Your task to perform on an android device: turn off location history Image 0: 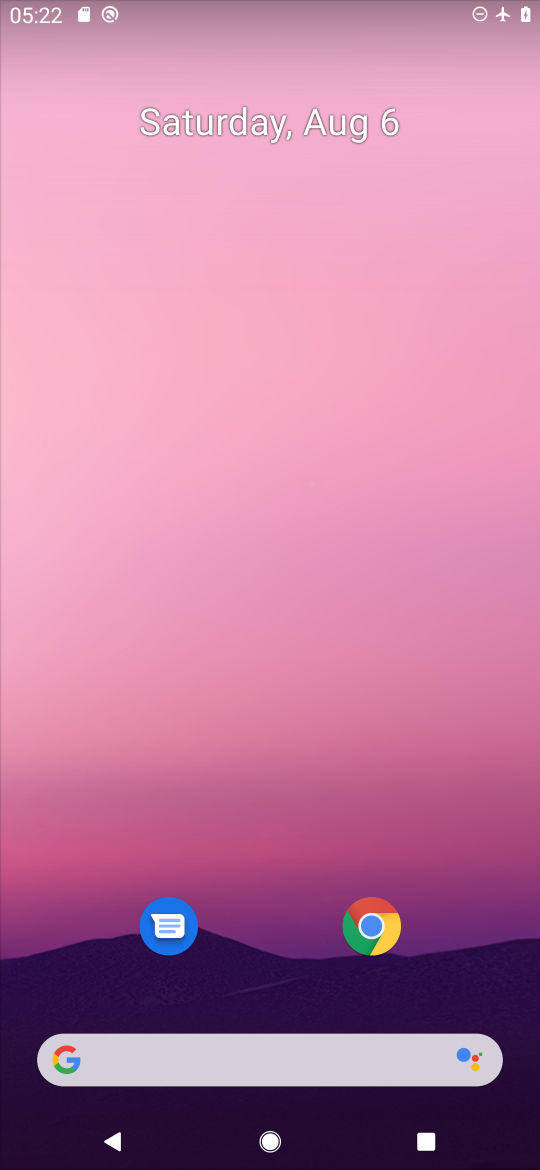
Step 0: drag from (280, 965) to (282, 234)
Your task to perform on an android device: turn off location history Image 1: 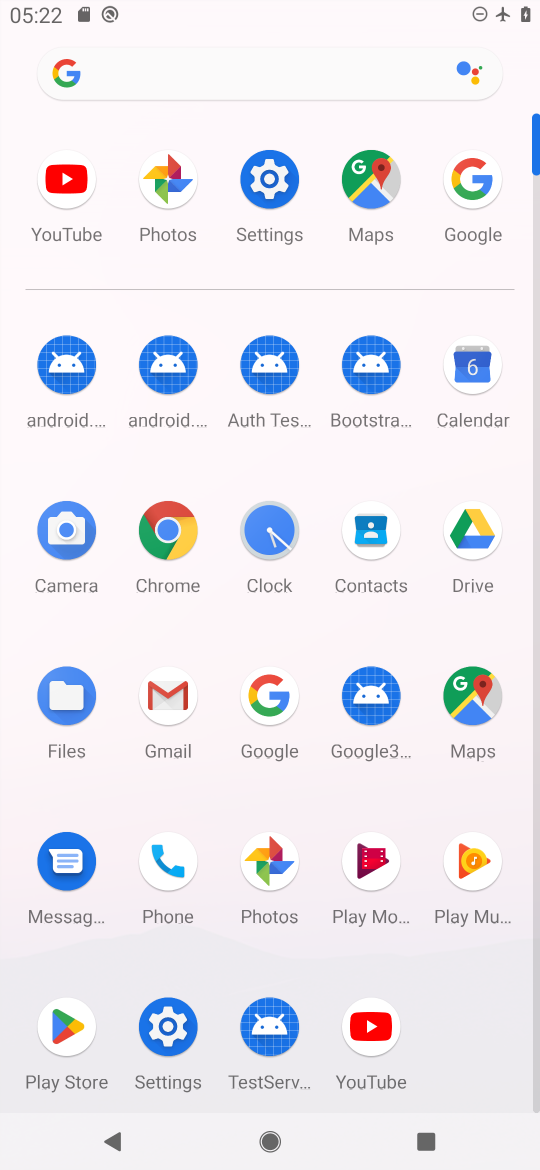
Step 1: click (255, 200)
Your task to perform on an android device: turn off location history Image 2: 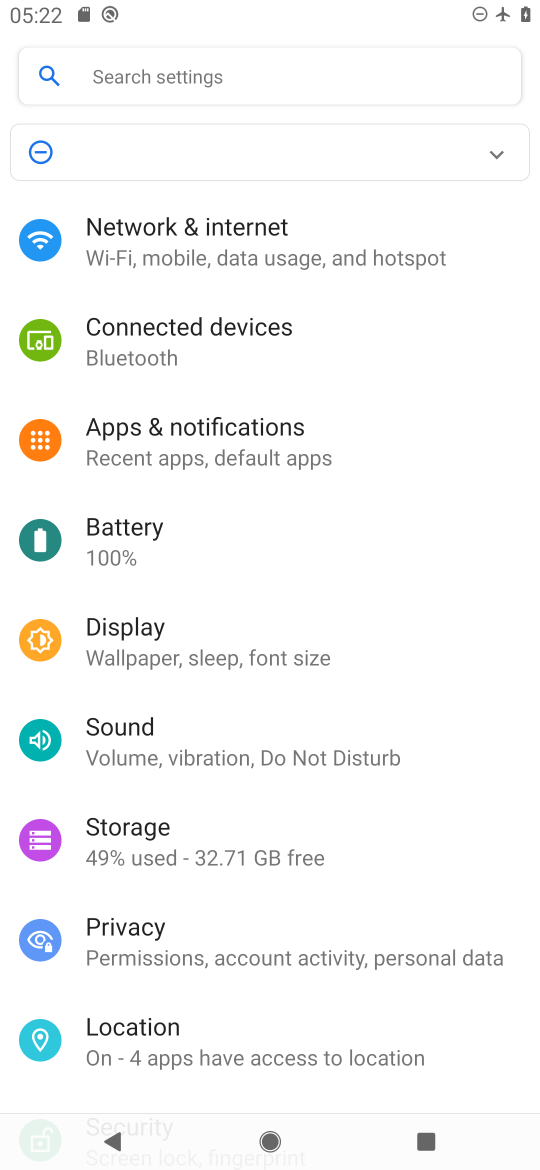
Step 2: click (220, 1020)
Your task to perform on an android device: turn off location history Image 3: 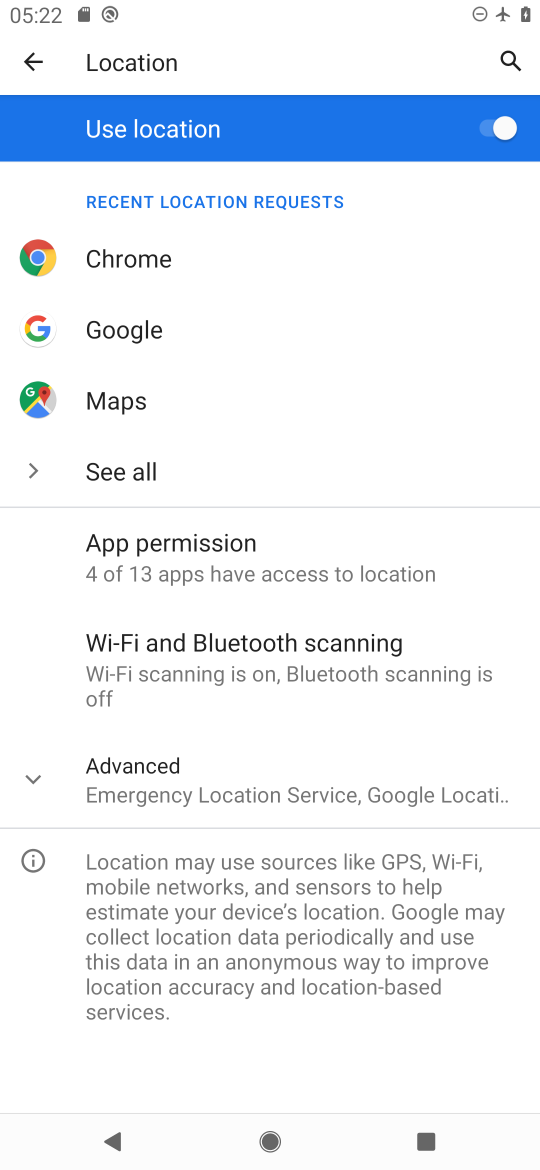
Step 3: click (189, 765)
Your task to perform on an android device: turn off location history Image 4: 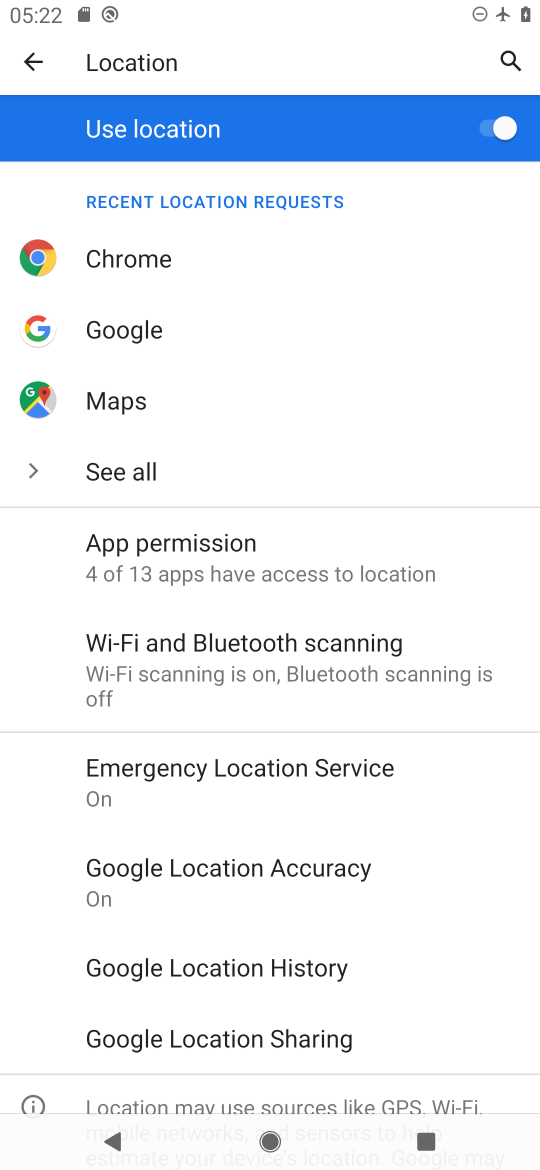
Step 4: click (254, 947)
Your task to perform on an android device: turn off location history Image 5: 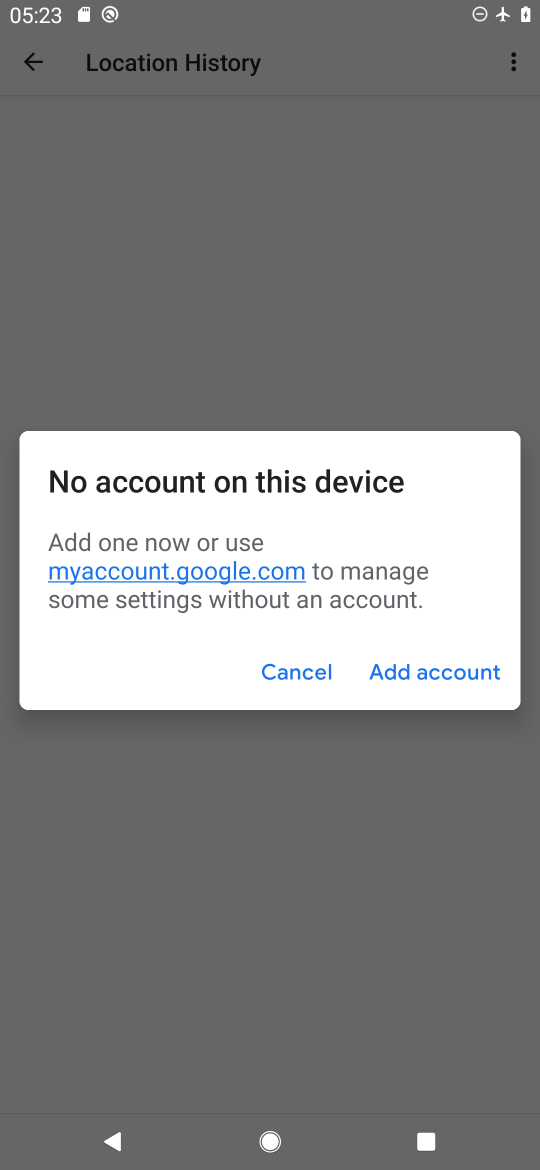
Step 5: click (289, 675)
Your task to perform on an android device: turn off location history Image 6: 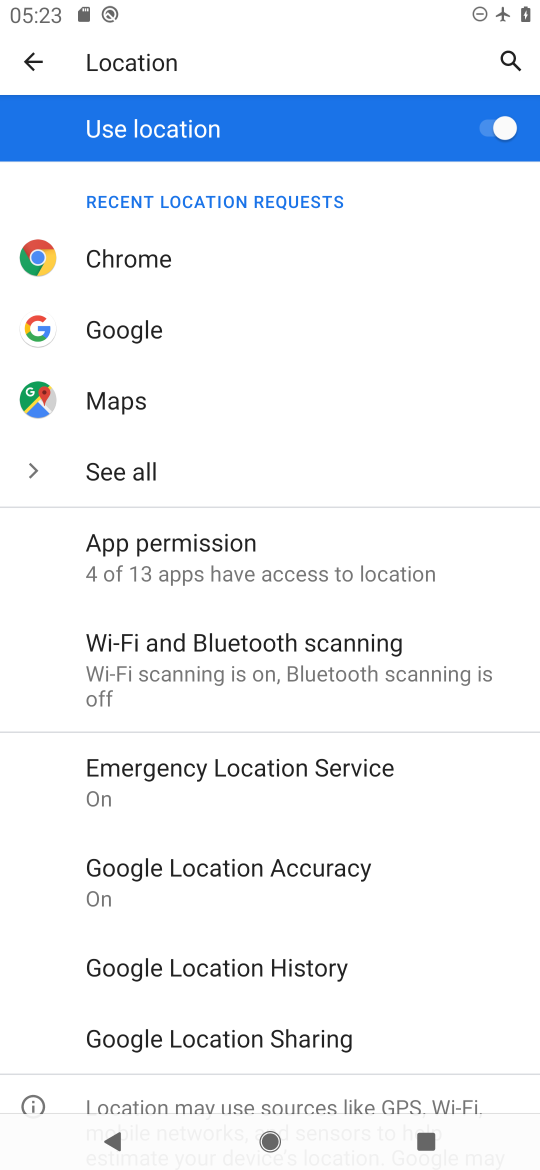
Step 6: click (321, 955)
Your task to perform on an android device: turn off location history Image 7: 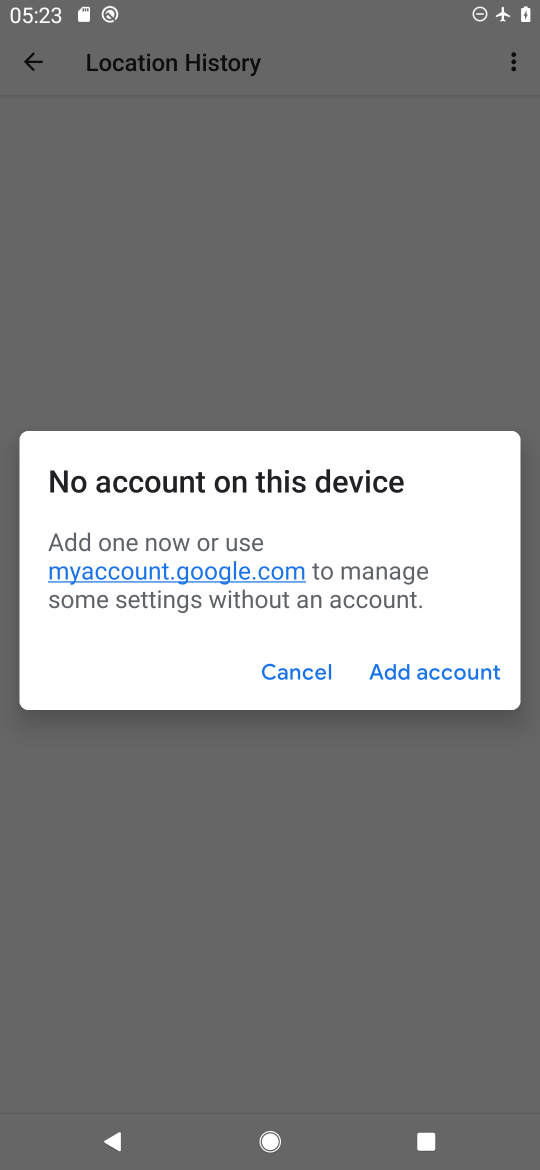
Step 7: task complete